Your task to perform on an android device: turn pop-ups on in chrome Image 0: 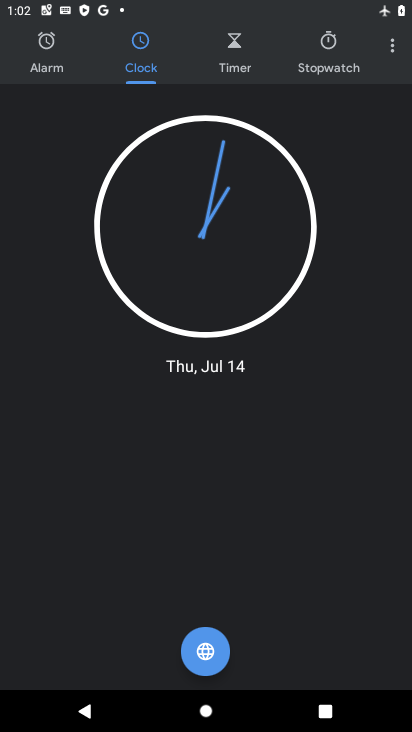
Step 0: press home button
Your task to perform on an android device: turn pop-ups on in chrome Image 1: 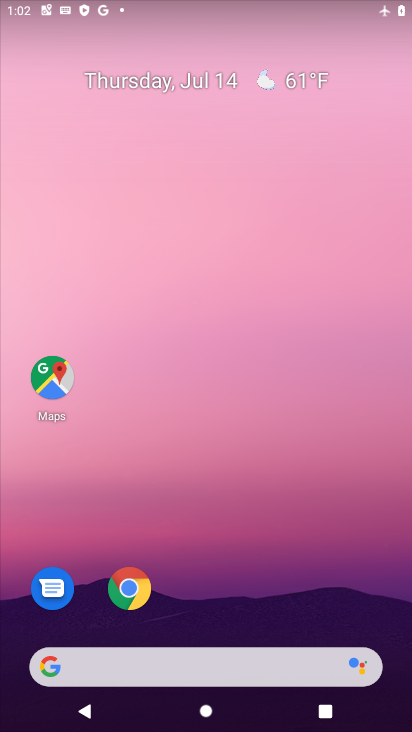
Step 1: click (119, 586)
Your task to perform on an android device: turn pop-ups on in chrome Image 2: 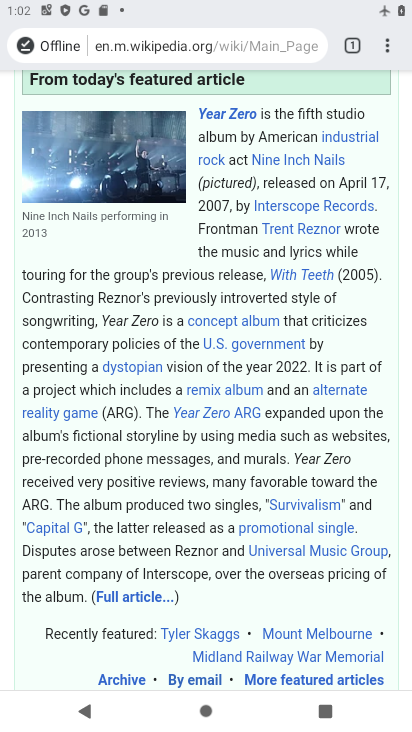
Step 2: click (388, 50)
Your task to perform on an android device: turn pop-ups on in chrome Image 3: 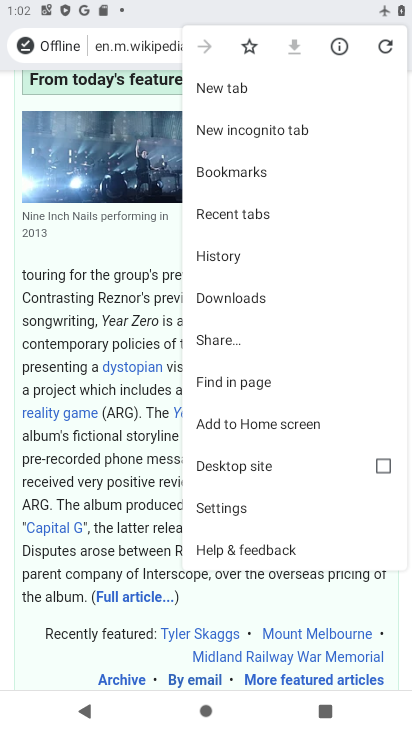
Step 3: click (243, 509)
Your task to perform on an android device: turn pop-ups on in chrome Image 4: 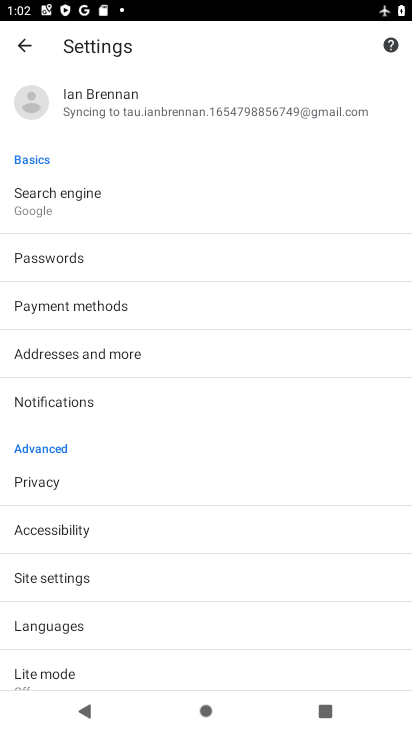
Step 4: click (72, 579)
Your task to perform on an android device: turn pop-ups on in chrome Image 5: 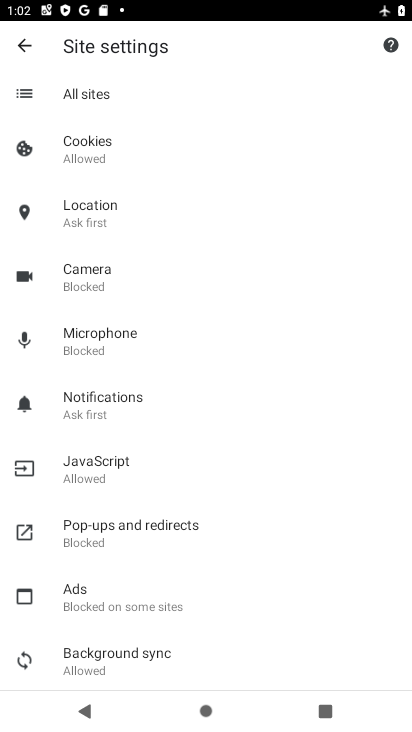
Step 5: click (119, 534)
Your task to perform on an android device: turn pop-ups on in chrome Image 6: 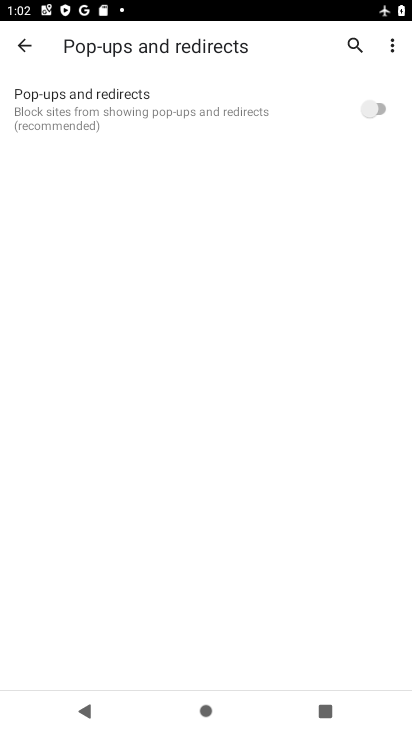
Step 6: click (382, 105)
Your task to perform on an android device: turn pop-ups on in chrome Image 7: 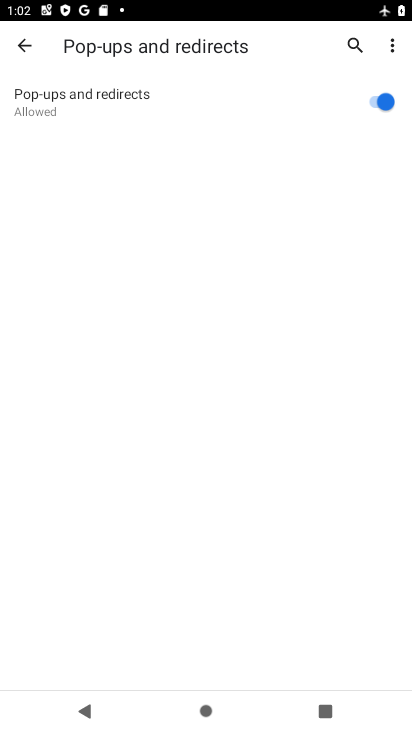
Step 7: task complete